Your task to perform on an android device: snooze an email in the gmail app Image 0: 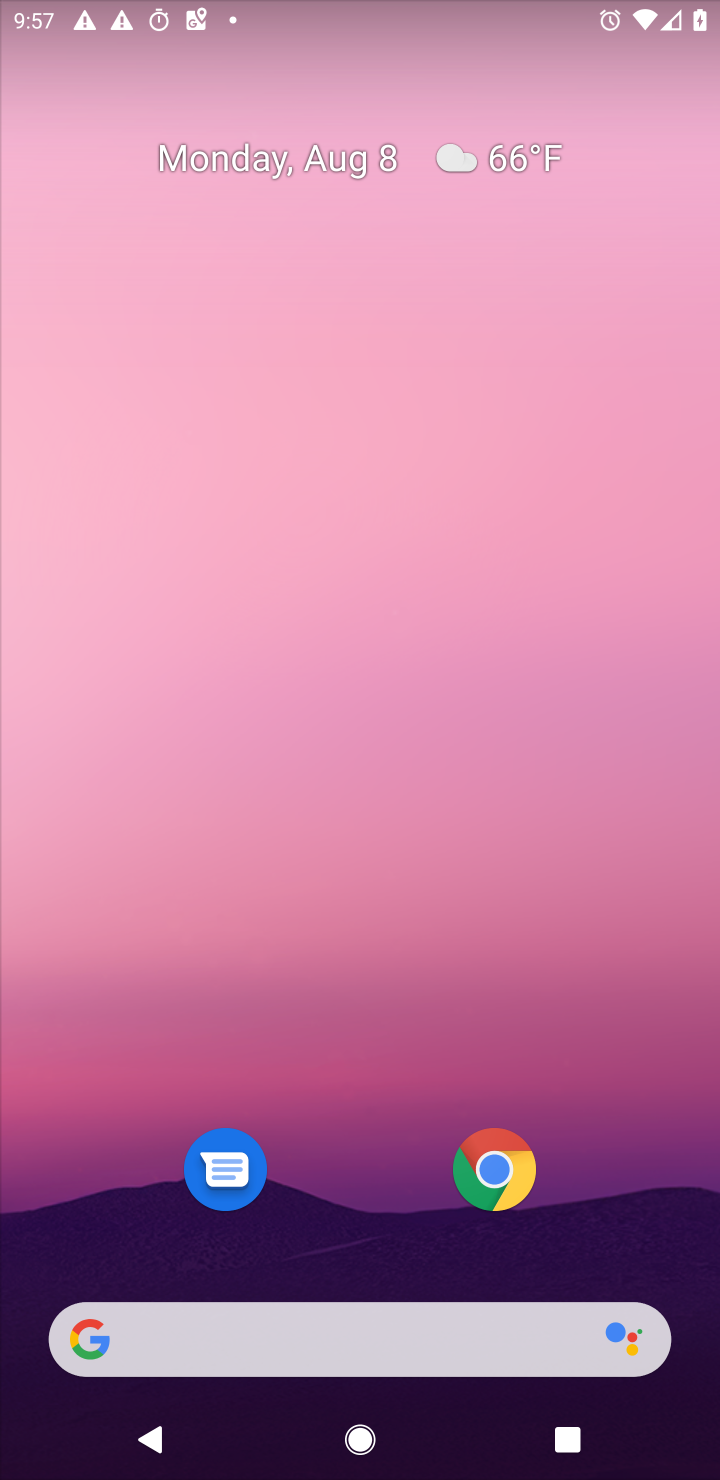
Step 0: drag from (410, 451) to (484, 21)
Your task to perform on an android device: snooze an email in the gmail app Image 1: 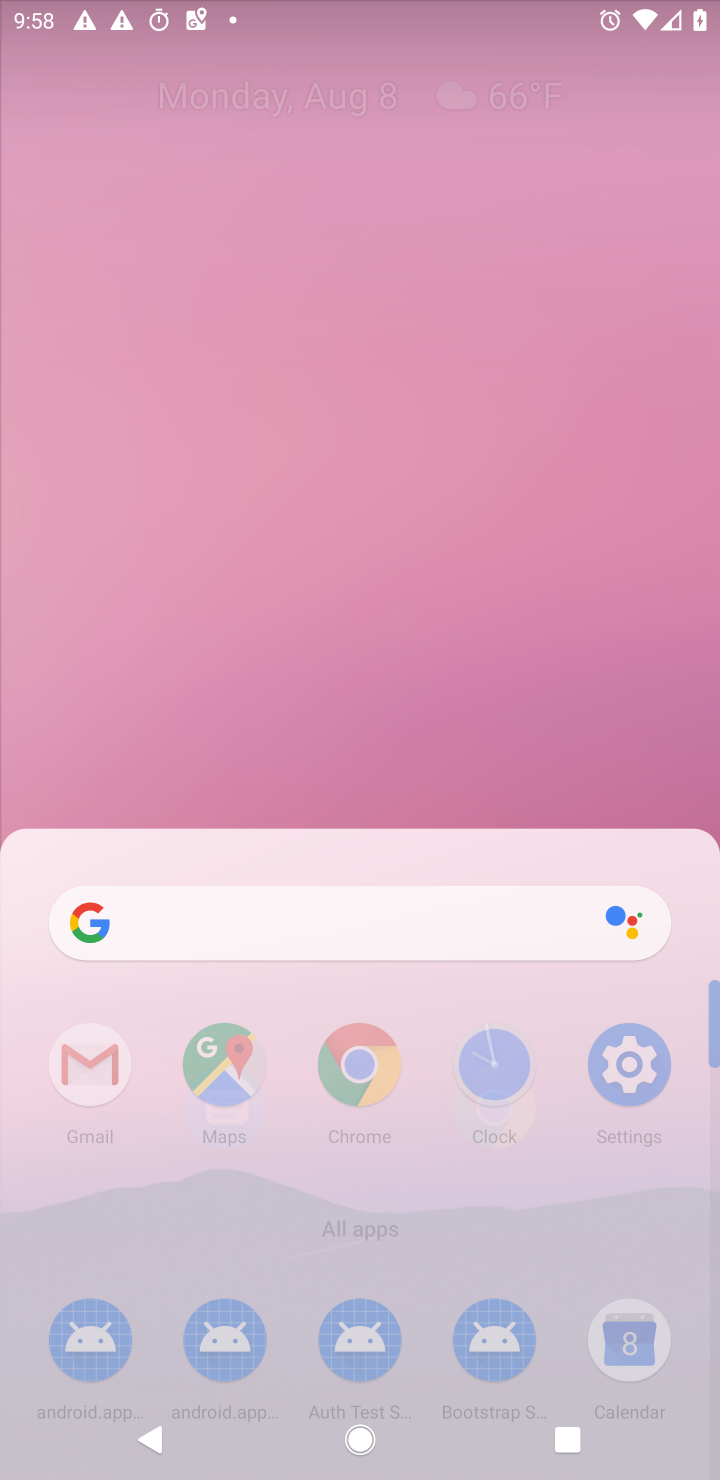
Step 1: drag from (394, 581) to (425, 146)
Your task to perform on an android device: snooze an email in the gmail app Image 2: 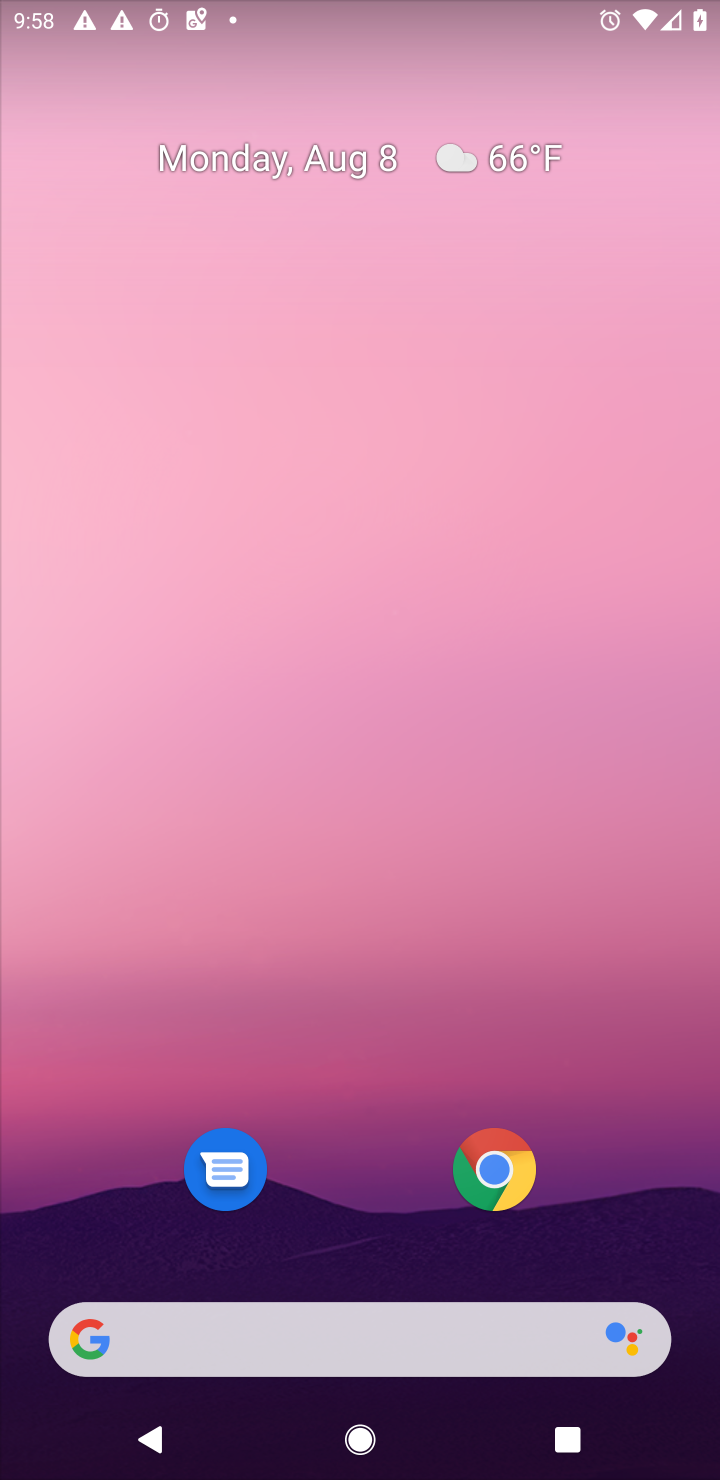
Step 2: drag from (338, 1249) to (382, 43)
Your task to perform on an android device: snooze an email in the gmail app Image 3: 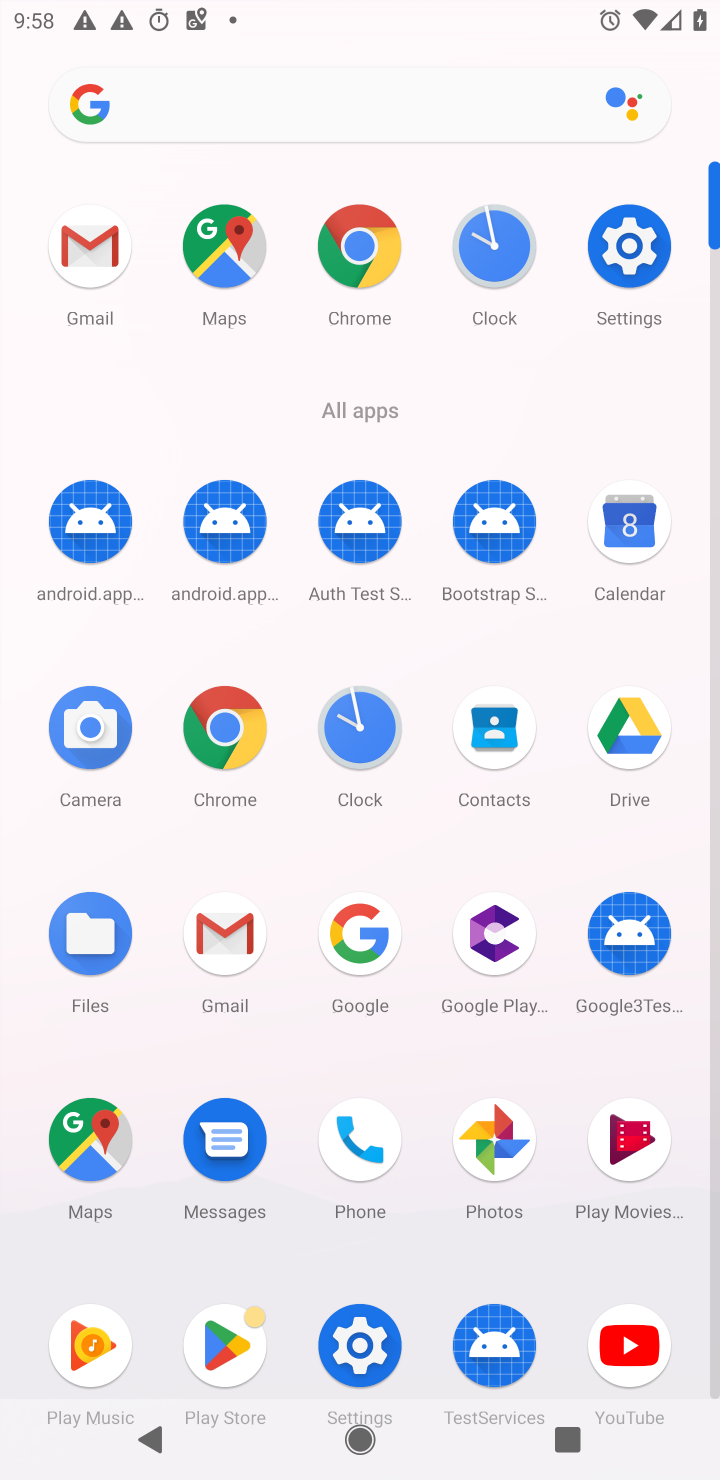
Step 3: click (81, 247)
Your task to perform on an android device: snooze an email in the gmail app Image 4: 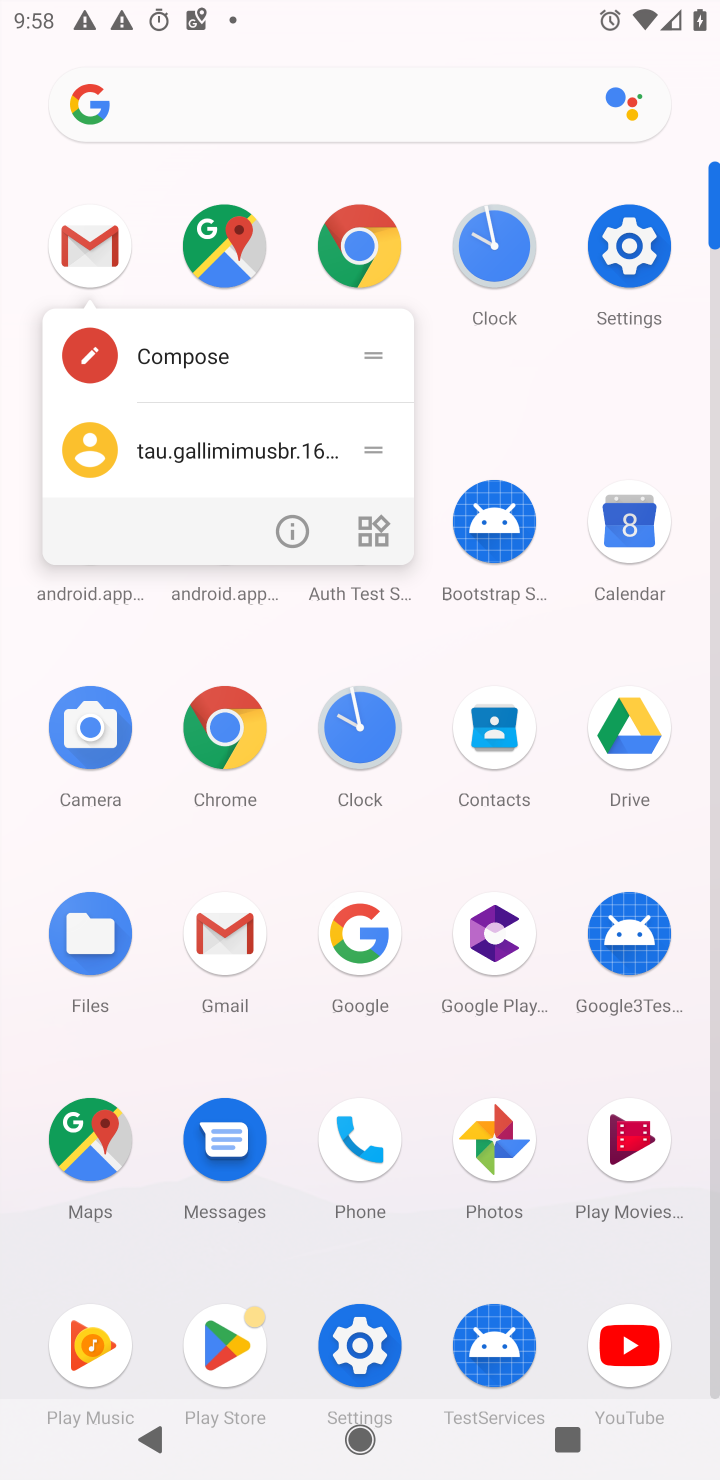
Step 4: click (103, 230)
Your task to perform on an android device: snooze an email in the gmail app Image 5: 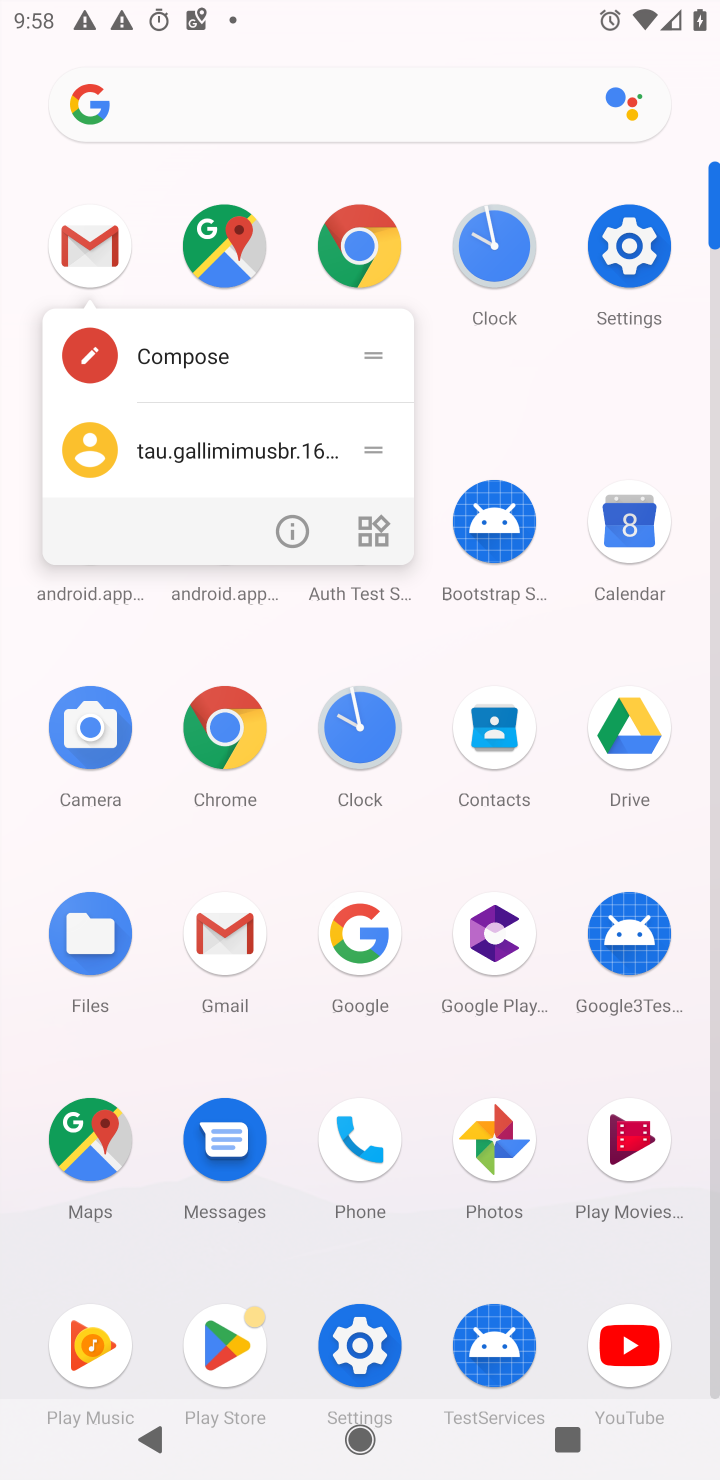
Step 5: click (97, 241)
Your task to perform on an android device: snooze an email in the gmail app Image 6: 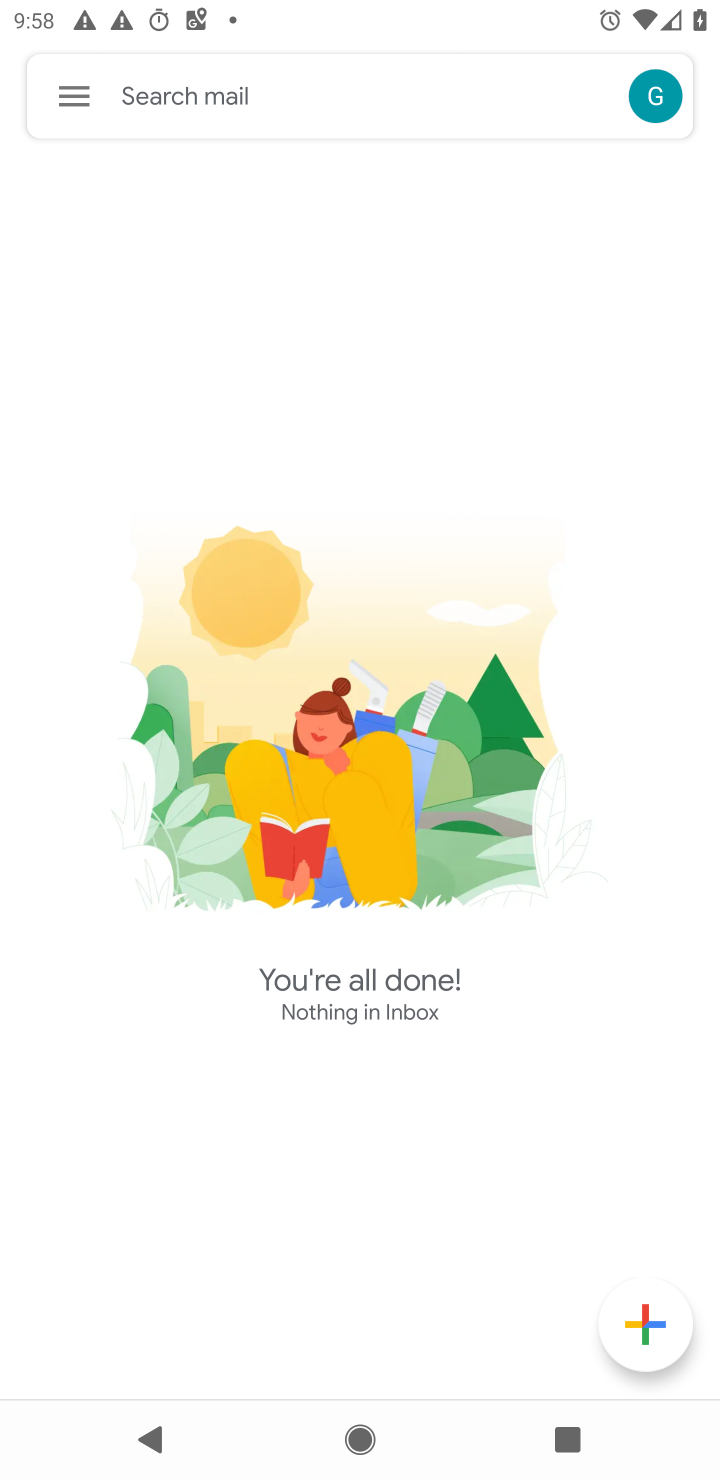
Step 6: click (82, 92)
Your task to perform on an android device: snooze an email in the gmail app Image 7: 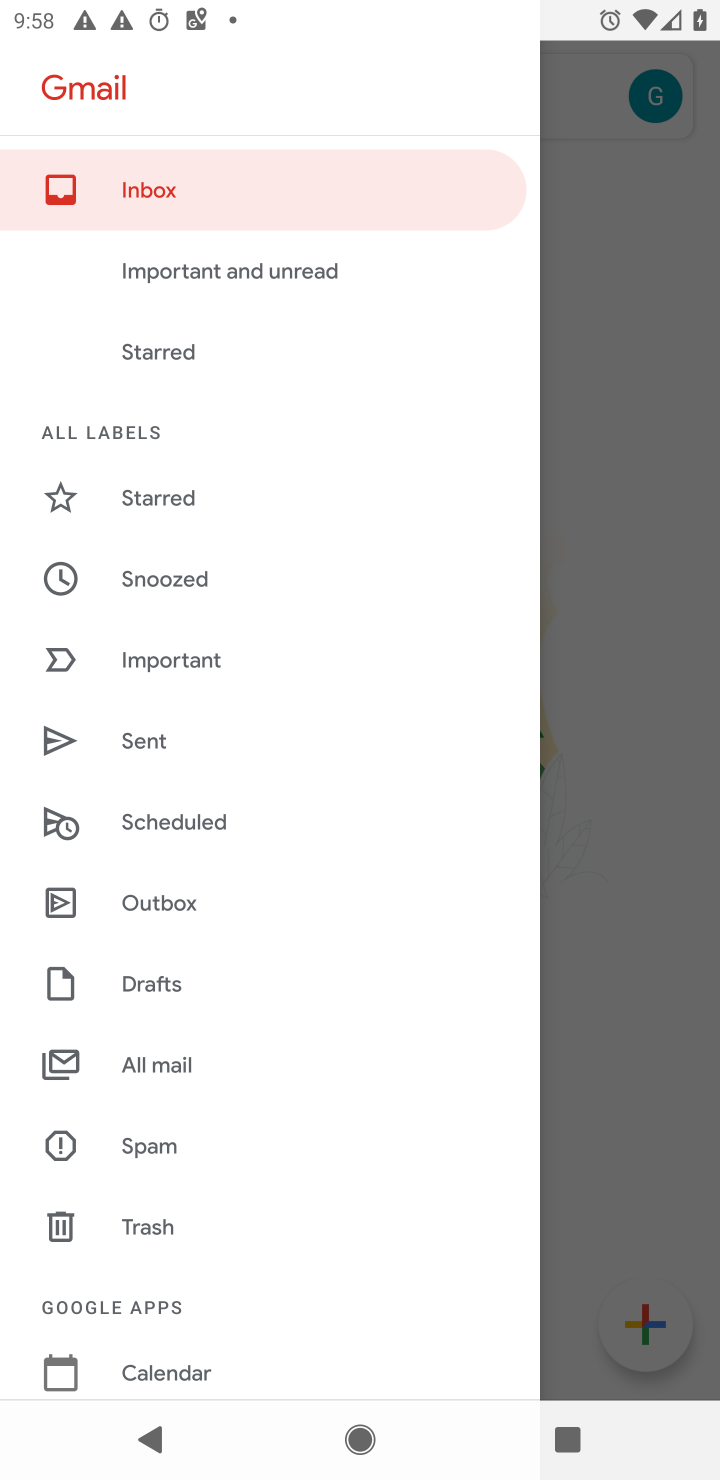
Step 7: click (172, 1075)
Your task to perform on an android device: snooze an email in the gmail app Image 8: 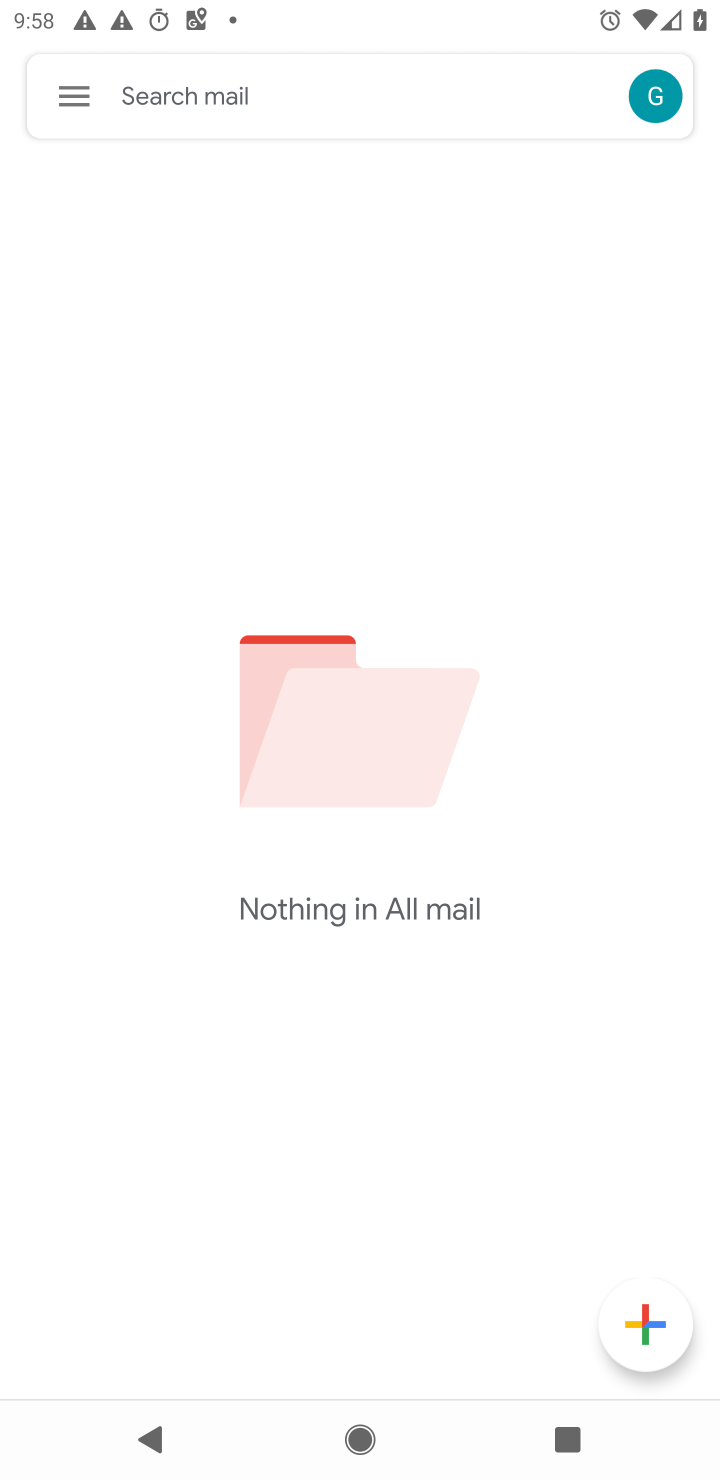
Step 8: task complete